Your task to perform on an android device: Play the last video I watched on Youtube Image 0: 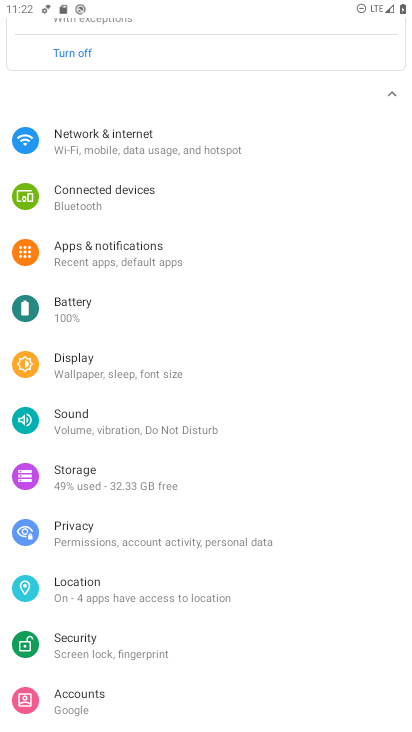
Step 0: press home button
Your task to perform on an android device: Play the last video I watched on Youtube Image 1: 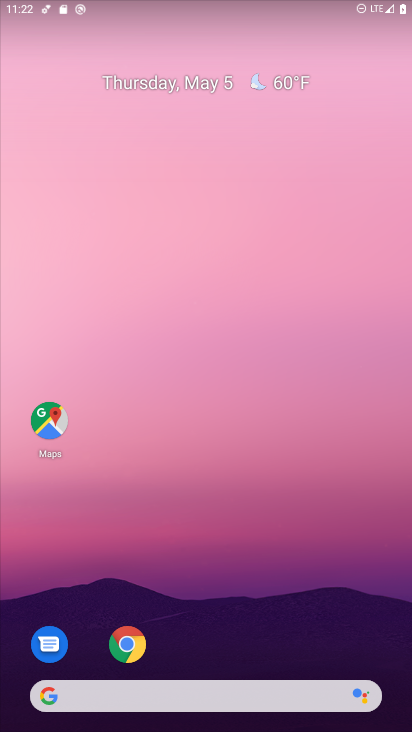
Step 1: drag from (320, 536) to (325, 170)
Your task to perform on an android device: Play the last video I watched on Youtube Image 2: 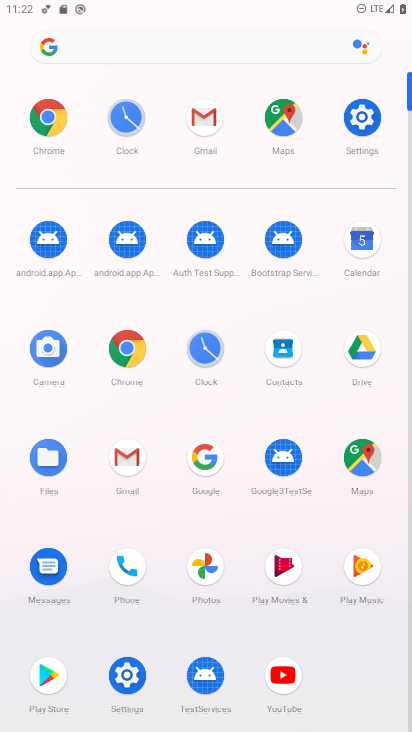
Step 2: click (283, 672)
Your task to perform on an android device: Play the last video I watched on Youtube Image 3: 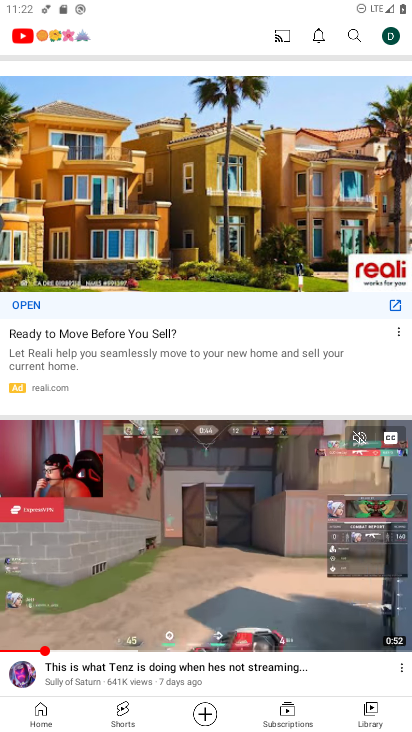
Step 3: click (370, 716)
Your task to perform on an android device: Play the last video I watched on Youtube Image 4: 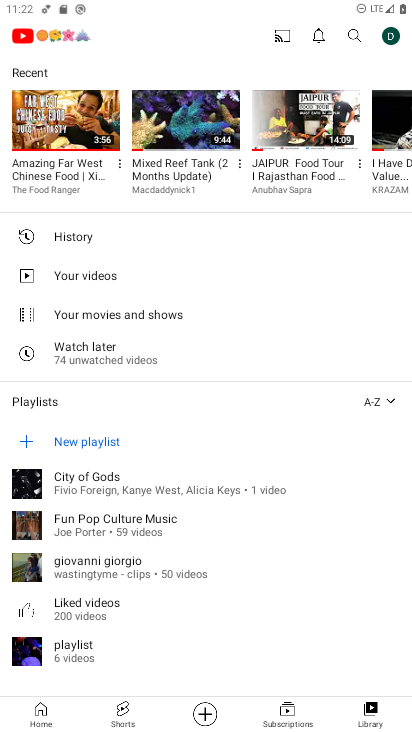
Step 4: task complete